Your task to perform on an android device: Open the Play Movies app and select the watchlist tab. Image 0: 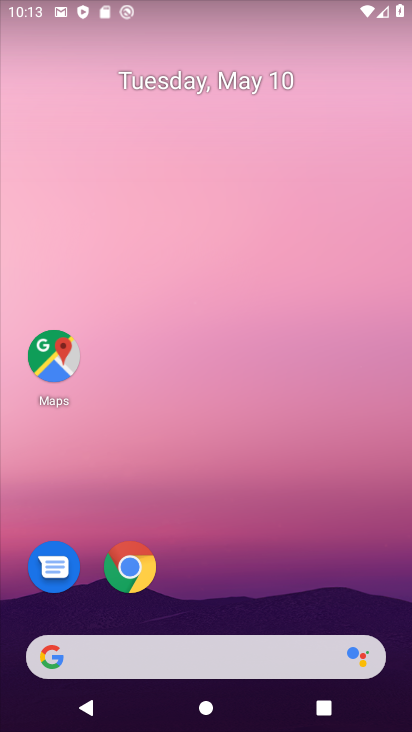
Step 0: drag from (190, 516) to (266, 15)
Your task to perform on an android device: Open the Play Movies app and select the watchlist tab. Image 1: 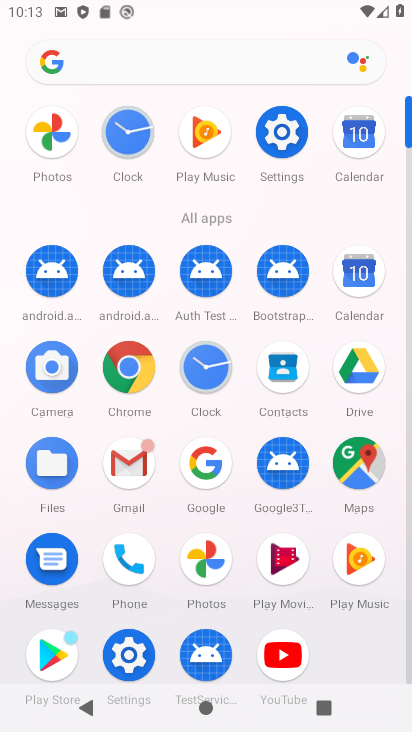
Step 1: click (264, 563)
Your task to perform on an android device: Open the Play Movies app and select the watchlist tab. Image 2: 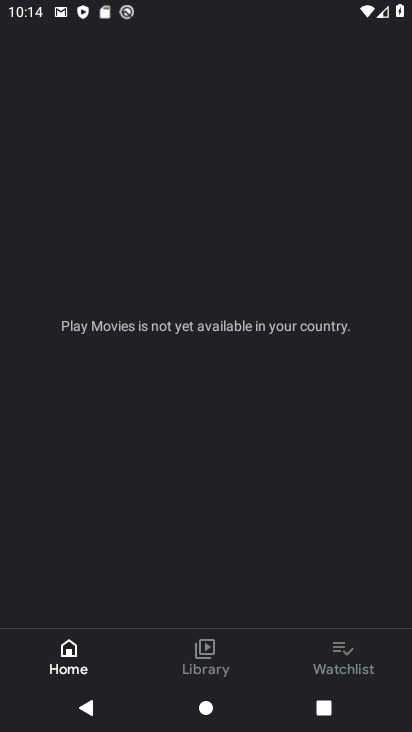
Step 2: click (334, 655)
Your task to perform on an android device: Open the Play Movies app and select the watchlist tab. Image 3: 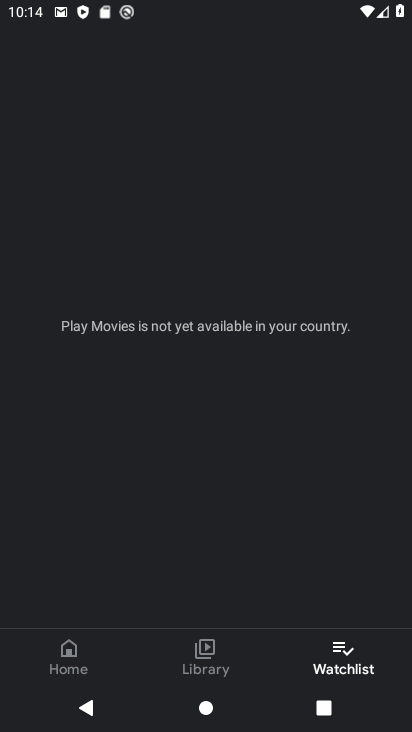
Step 3: task complete